Your task to perform on an android device: Go to internet settings Image 0: 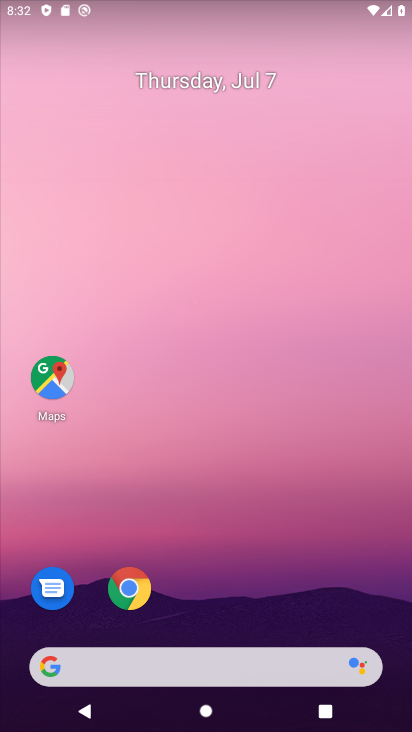
Step 0: drag from (262, 541) to (180, 182)
Your task to perform on an android device: Go to internet settings Image 1: 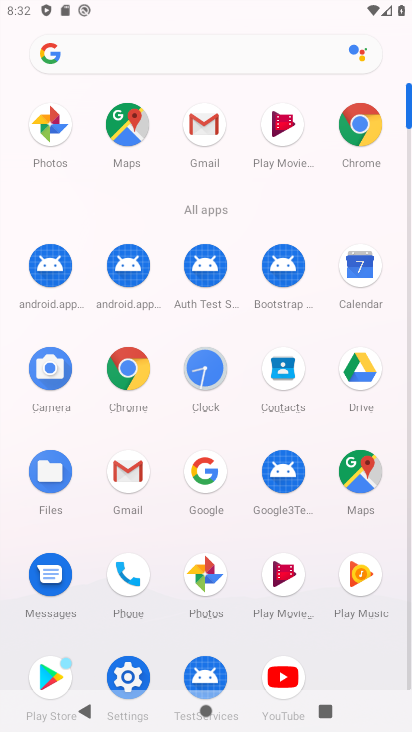
Step 1: click (125, 675)
Your task to perform on an android device: Go to internet settings Image 2: 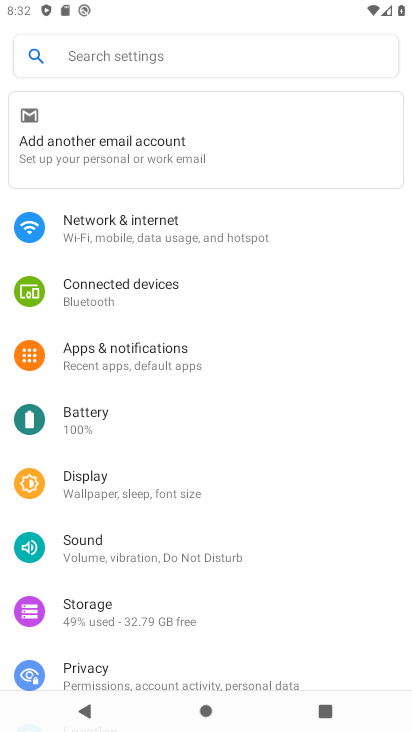
Step 2: click (118, 224)
Your task to perform on an android device: Go to internet settings Image 3: 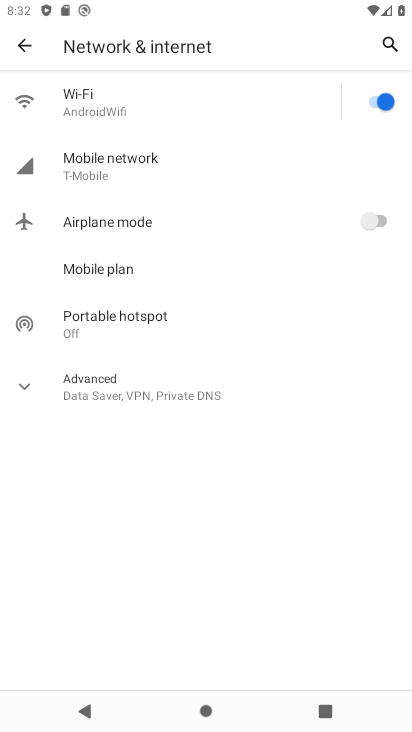
Step 3: click (150, 168)
Your task to perform on an android device: Go to internet settings Image 4: 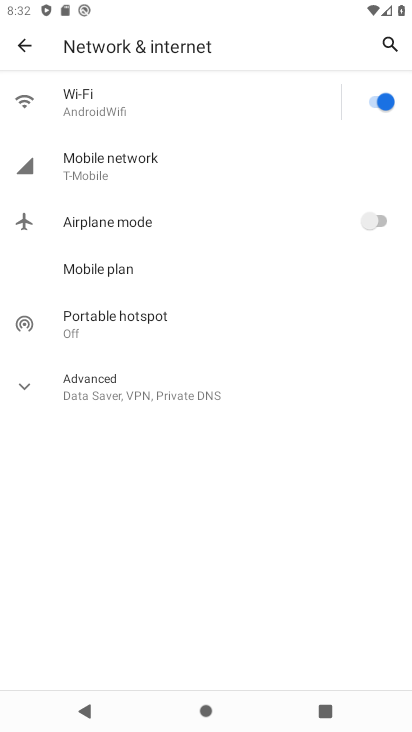
Step 4: task complete